Your task to perform on an android device: Show the shopping cart on amazon. Add razer blade to the cart on amazon, then select checkout. Image 0: 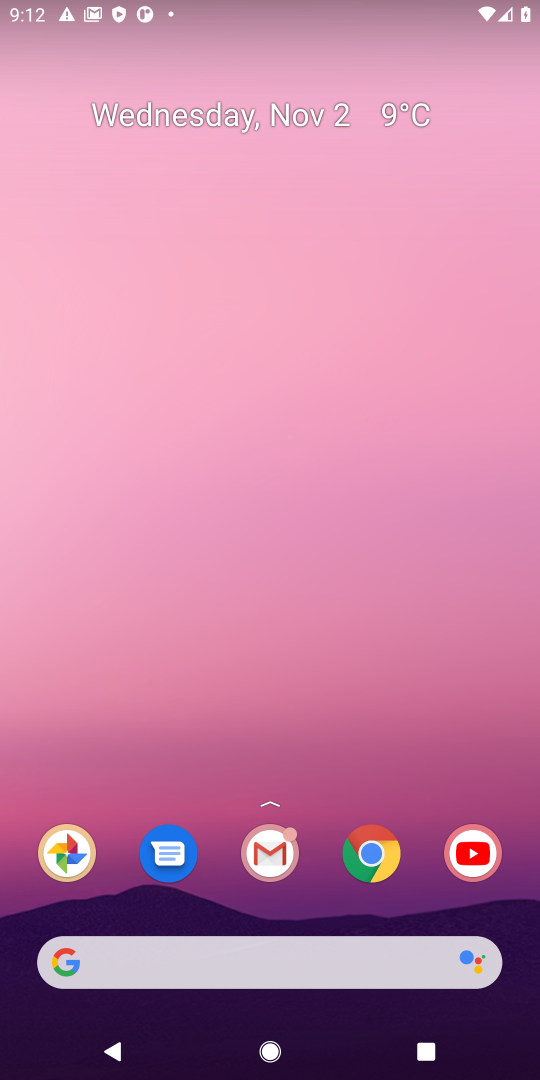
Step 0: click (376, 860)
Your task to perform on an android device: Show the shopping cart on amazon. Add razer blade to the cart on amazon, then select checkout. Image 1: 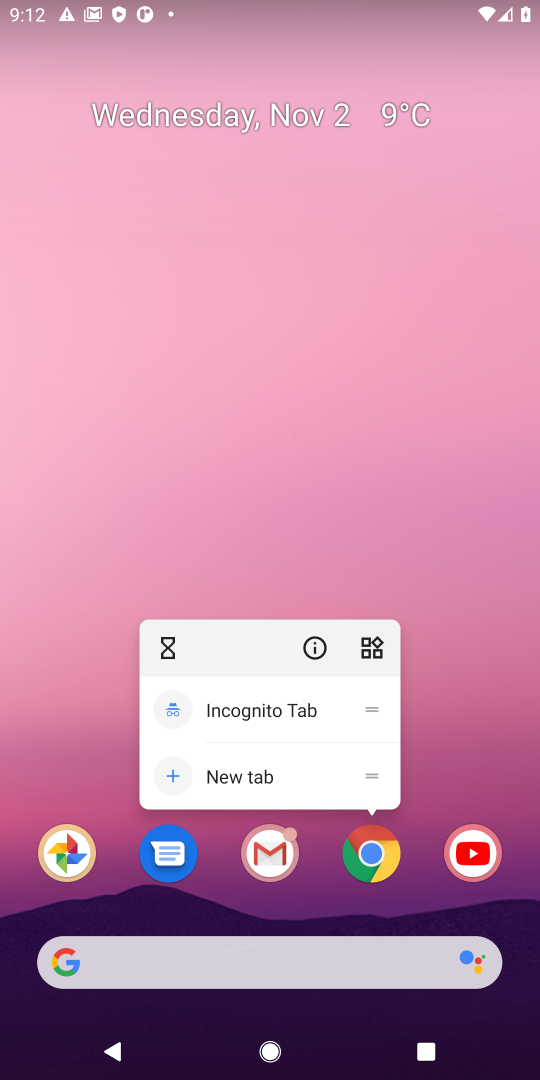
Step 1: click (376, 860)
Your task to perform on an android device: Show the shopping cart on amazon. Add razer blade to the cart on amazon, then select checkout. Image 2: 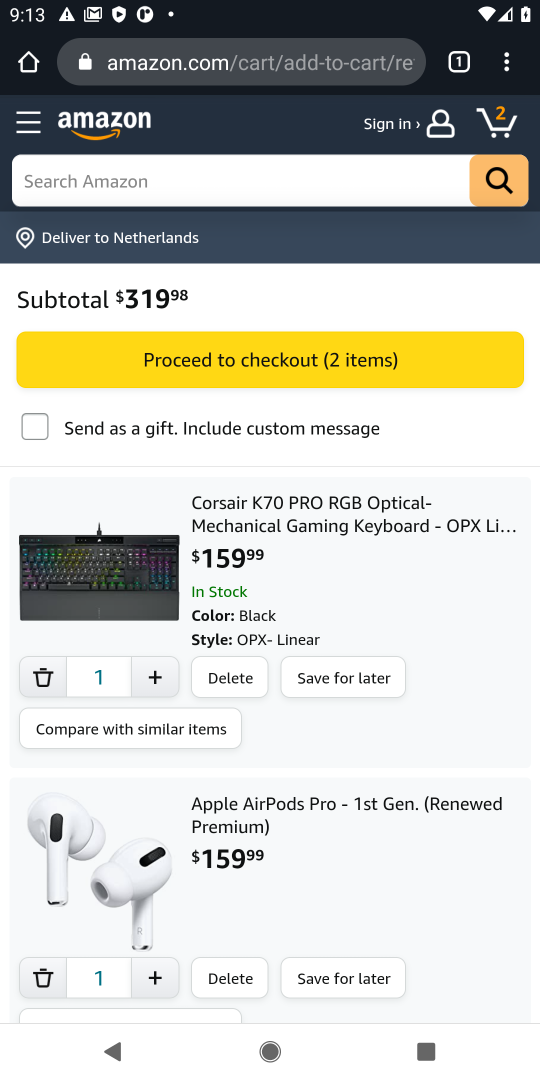
Step 2: click (212, 167)
Your task to perform on an android device: Show the shopping cart on amazon. Add razer blade to the cart on amazon, then select checkout. Image 3: 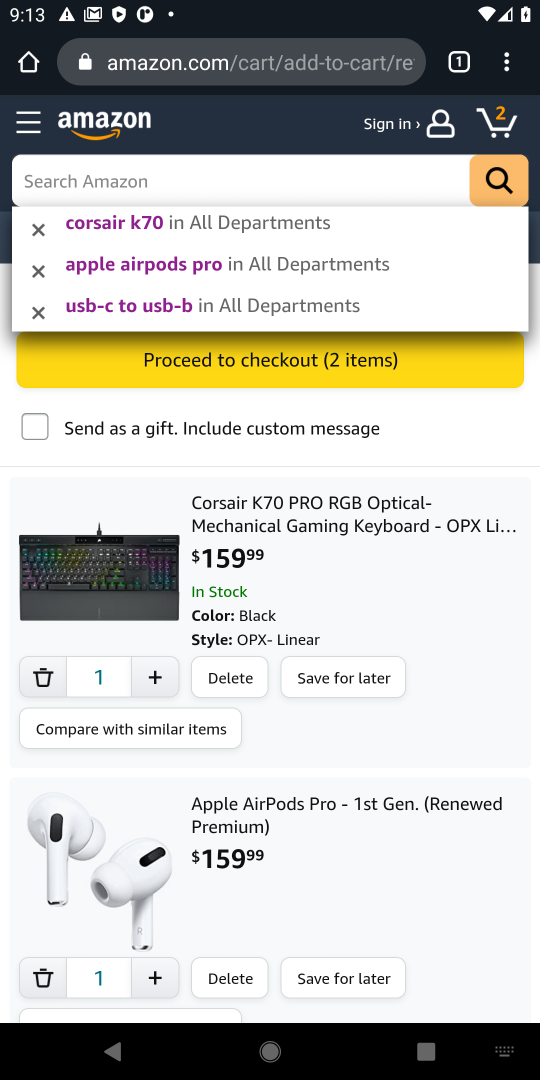
Step 3: type "razer blade"
Your task to perform on an android device: Show the shopping cart on amazon. Add razer blade to the cart on amazon, then select checkout. Image 4: 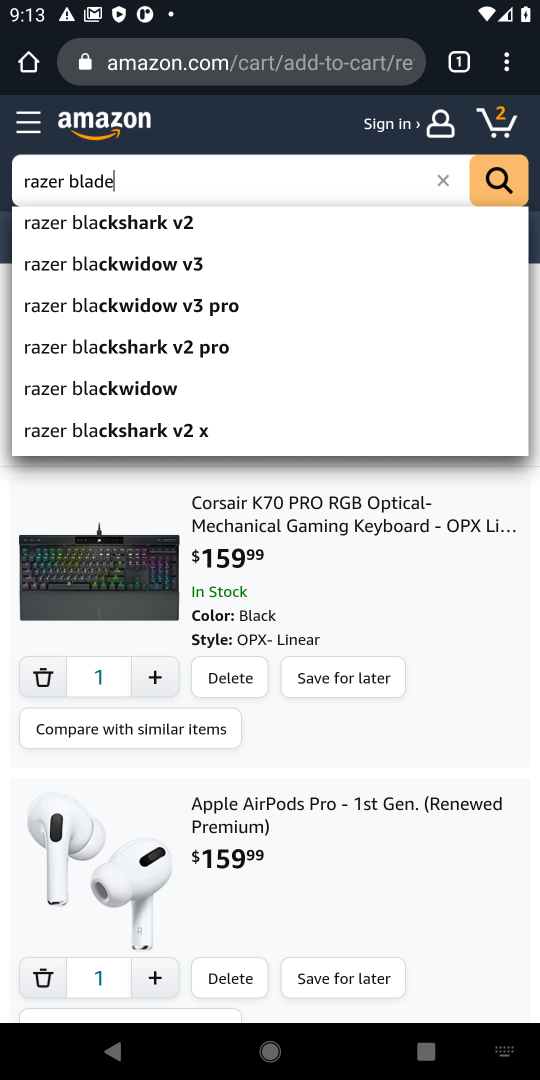
Step 4: press enter
Your task to perform on an android device: Show the shopping cart on amazon. Add razer blade to the cart on amazon, then select checkout. Image 5: 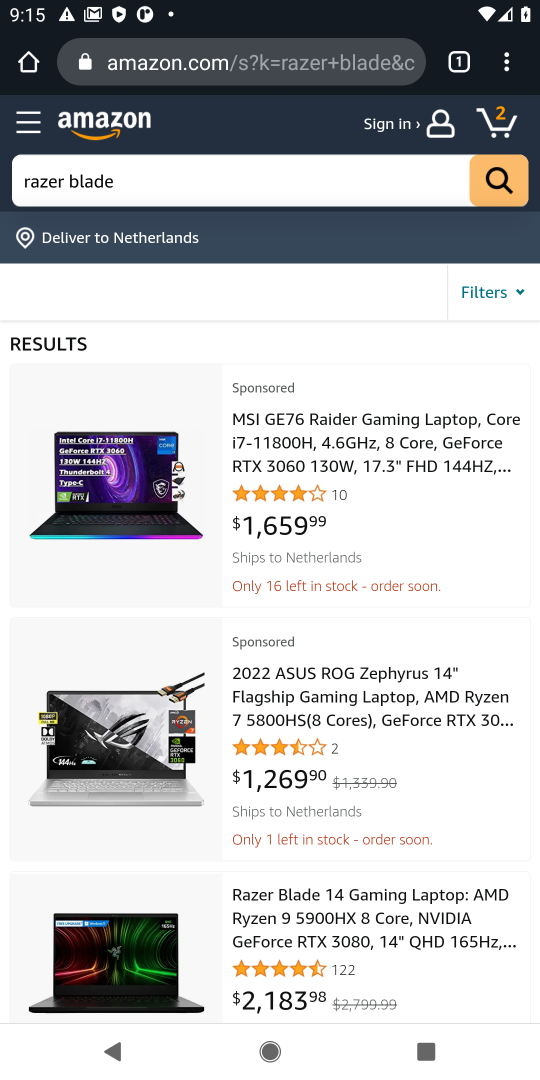
Step 5: drag from (415, 872) to (308, 910)
Your task to perform on an android device: Show the shopping cart on amazon. Add razer blade to the cart on amazon, then select checkout. Image 6: 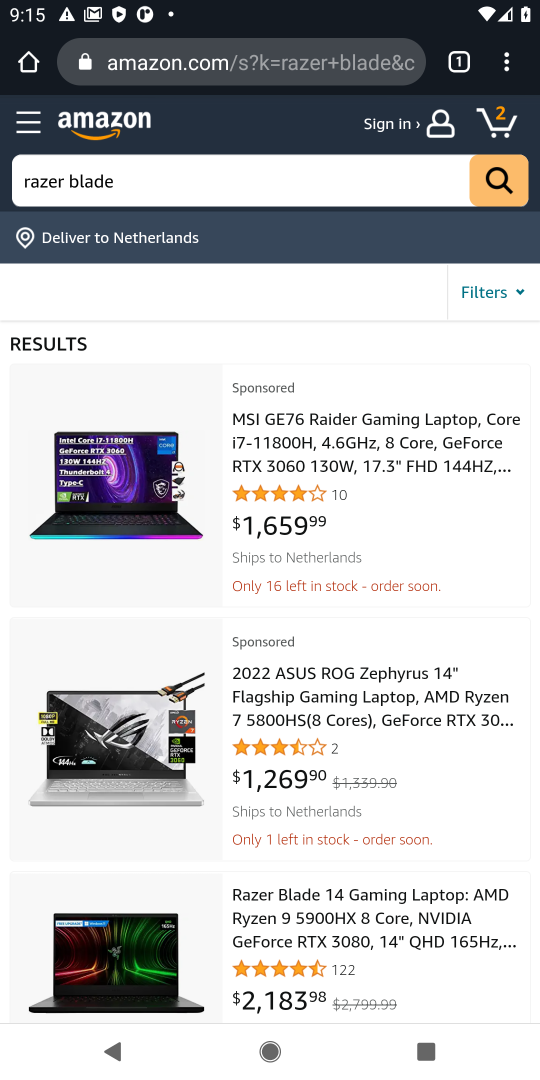
Step 6: click (246, 823)
Your task to perform on an android device: Show the shopping cart on amazon. Add razer blade to the cart on amazon, then select checkout. Image 7: 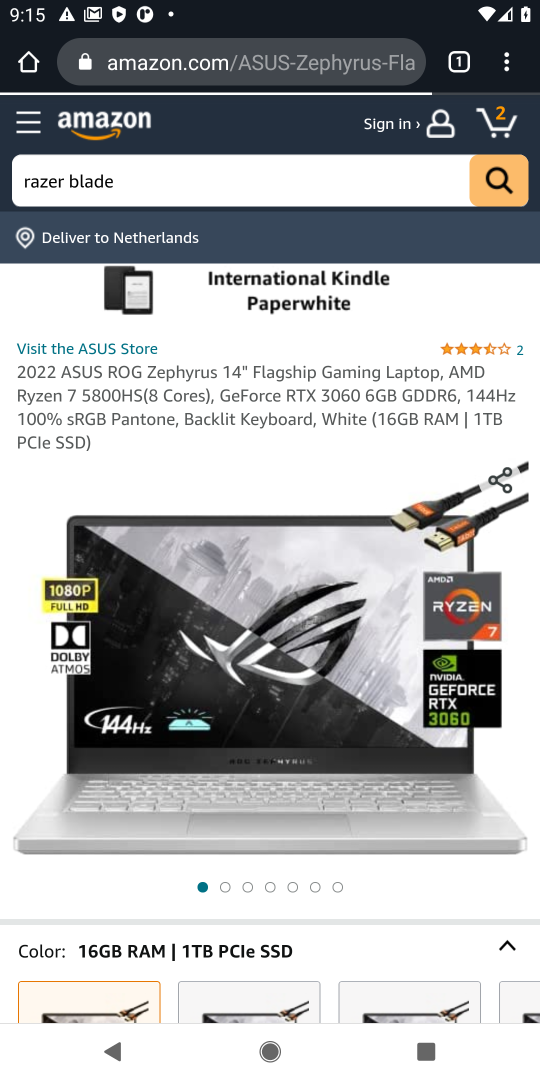
Step 7: drag from (144, 871) to (336, 282)
Your task to perform on an android device: Show the shopping cart on amazon. Add razer blade to the cart on amazon, then select checkout. Image 8: 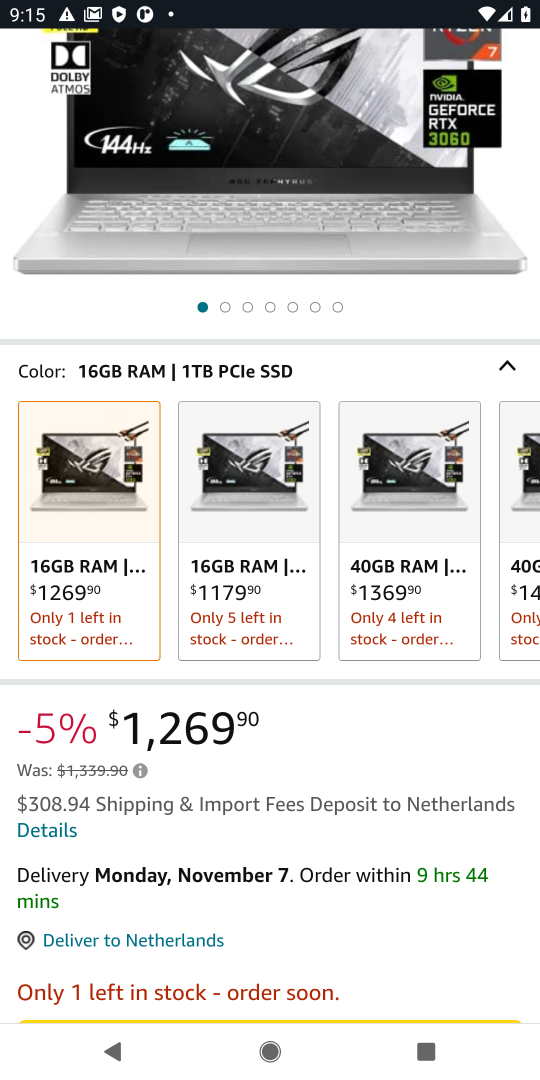
Step 8: drag from (322, 903) to (415, 473)
Your task to perform on an android device: Show the shopping cart on amazon. Add razer blade to the cart on amazon, then select checkout. Image 9: 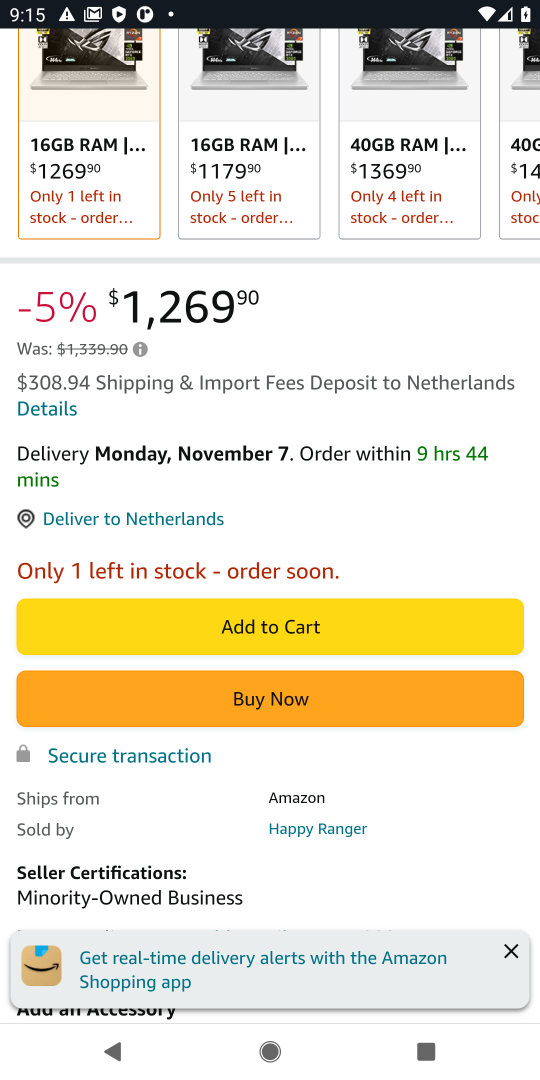
Step 9: click (274, 630)
Your task to perform on an android device: Show the shopping cart on amazon. Add razer blade to the cart on amazon, then select checkout. Image 10: 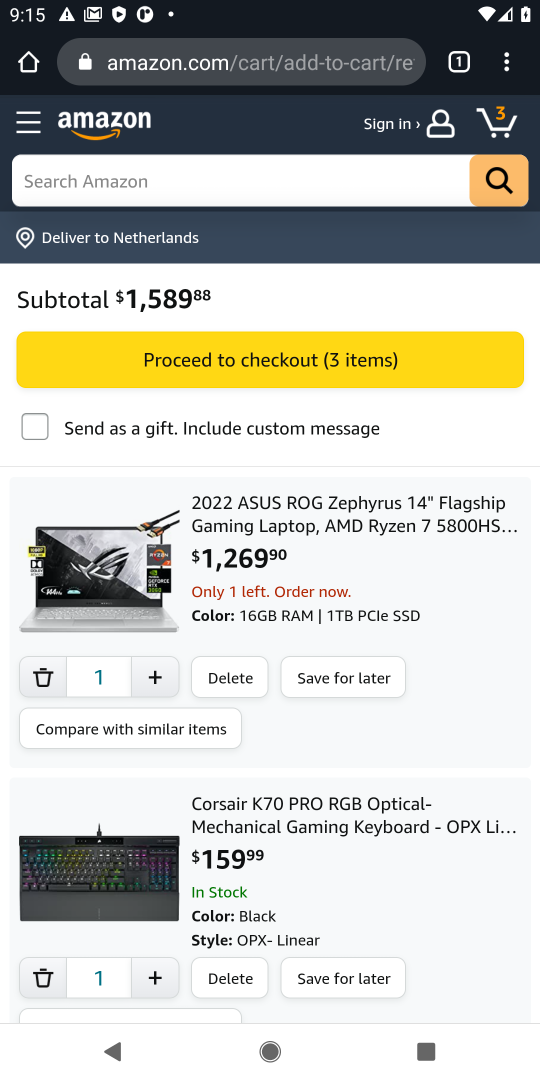
Step 10: drag from (323, 897) to (405, 868)
Your task to perform on an android device: Show the shopping cart on amazon. Add razer blade to the cart on amazon, then select checkout. Image 11: 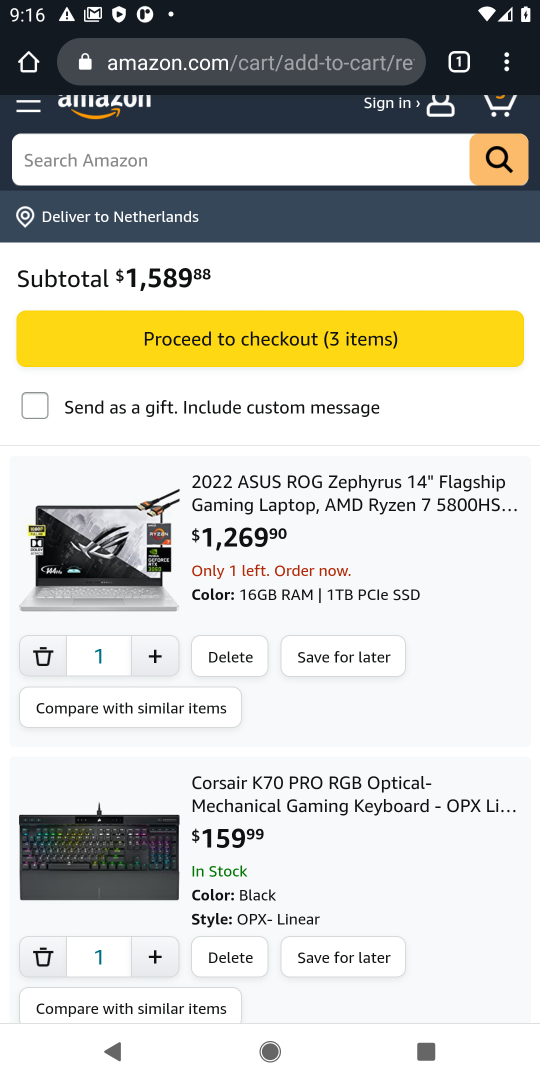
Step 11: click (351, 523)
Your task to perform on an android device: Show the shopping cart on amazon. Add razer blade to the cart on amazon, then select checkout. Image 12: 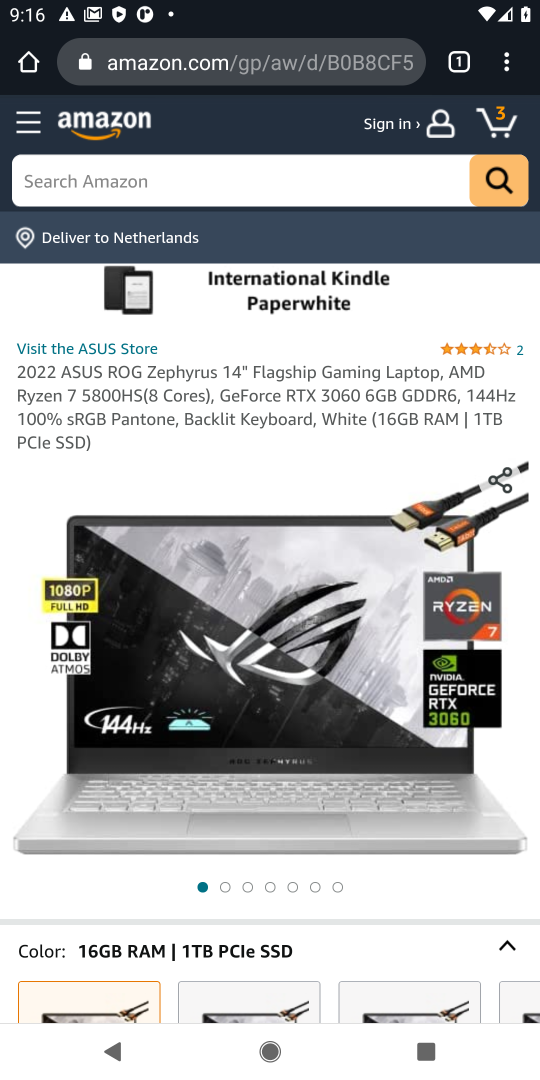
Step 12: task complete